Your task to perform on an android device: open device folders in google photos Image 0: 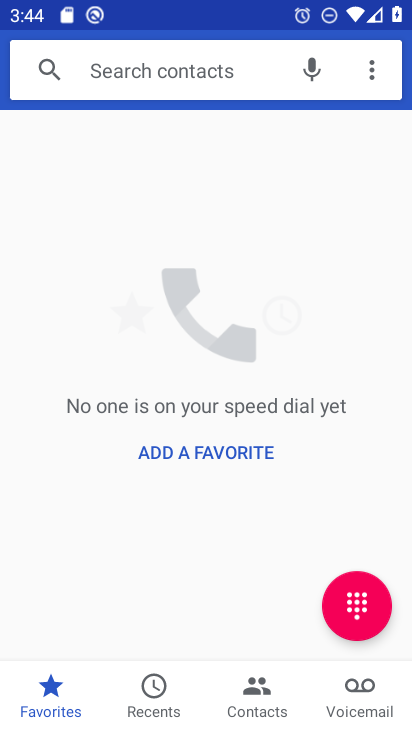
Step 0: press back button
Your task to perform on an android device: open device folders in google photos Image 1: 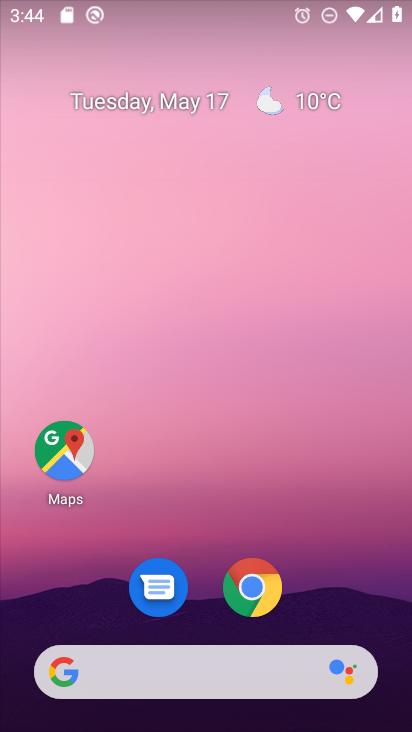
Step 1: drag from (318, 565) to (282, 40)
Your task to perform on an android device: open device folders in google photos Image 2: 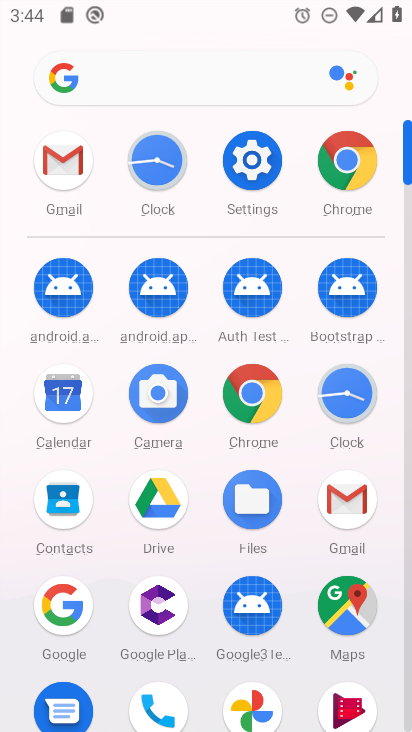
Step 2: drag from (23, 600) to (67, 275)
Your task to perform on an android device: open device folders in google photos Image 3: 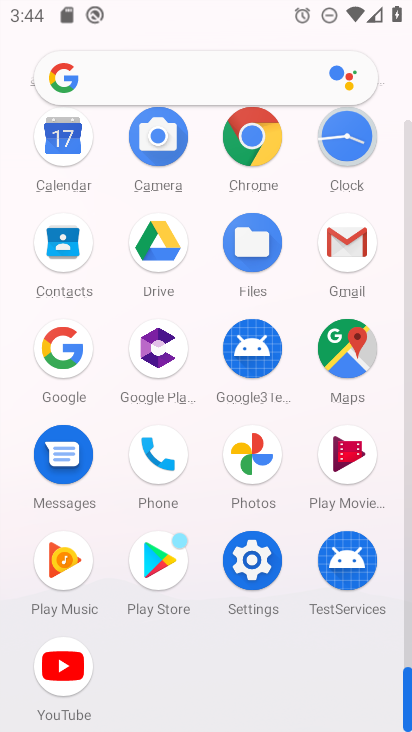
Step 3: click (245, 447)
Your task to perform on an android device: open device folders in google photos Image 4: 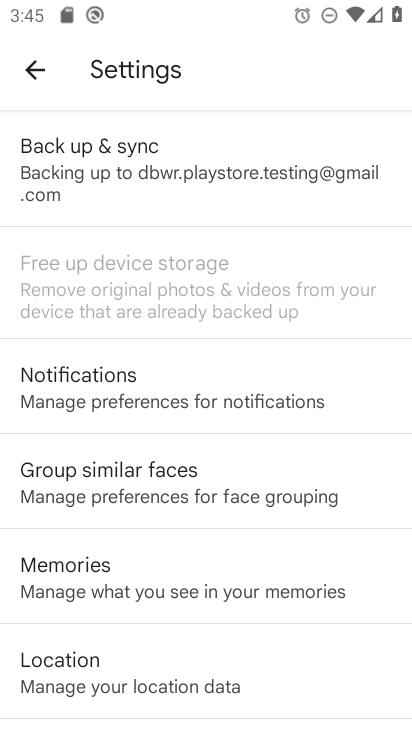
Step 4: drag from (298, 512) to (281, 160)
Your task to perform on an android device: open device folders in google photos Image 5: 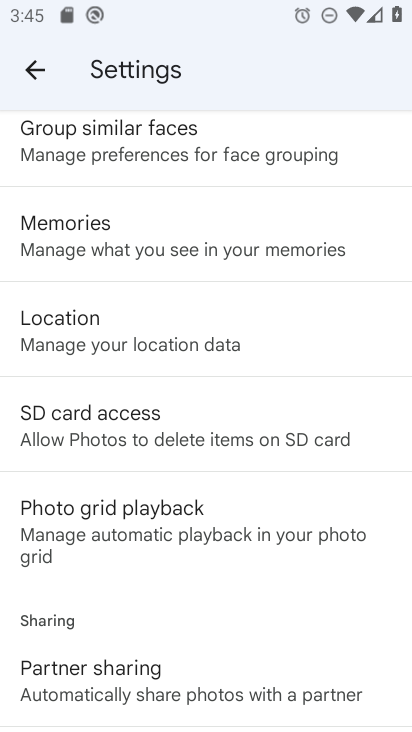
Step 5: drag from (274, 520) to (277, 129)
Your task to perform on an android device: open device folders in google photos Image 6: 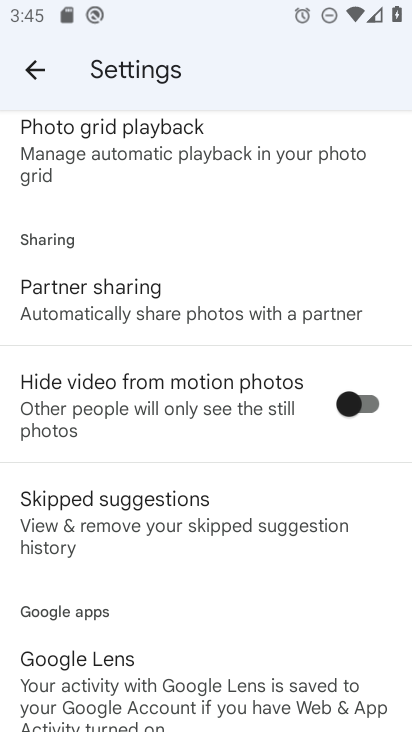
Step 6: drag from (206, 557) to (260, 90)
Your task to perform on an android device: open device folders in google photos Image 7: 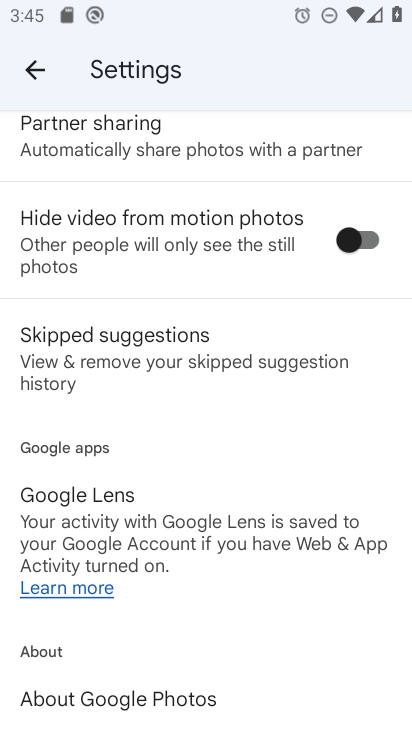
Step 7: drag from (180, 594) to (202, 182)
Your task to perform on an android device: open device folders in google photos Image 8: 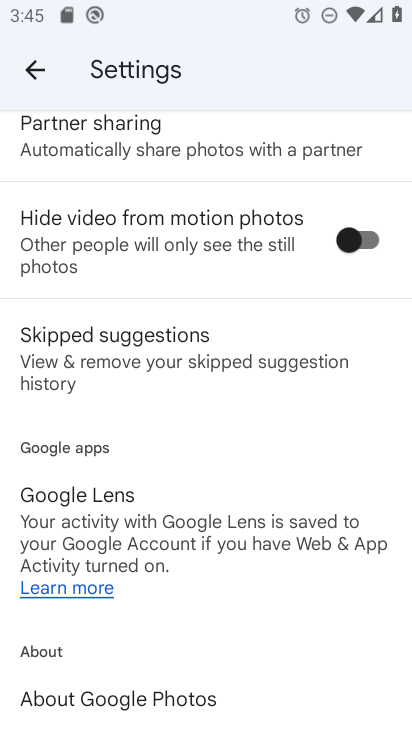
Step 8: drag from (193, 562) to (186, 214)
Your task to perform on an android device: open device folders in google photos Image 9: 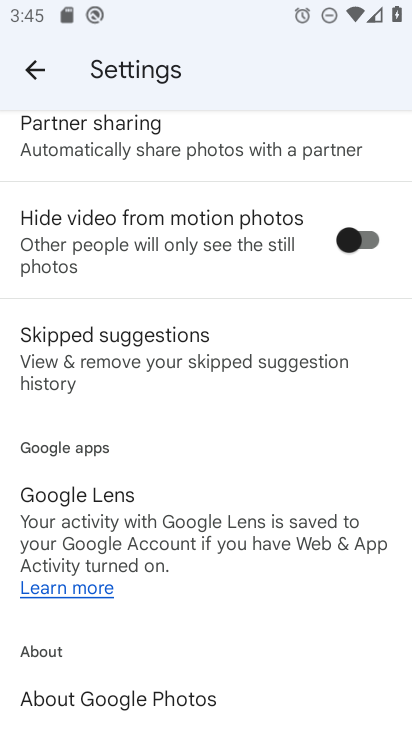
Step 9: drag from (222, 599) to (249, 159)
Your task to perform on an android device: open device folders in google photos Image 10: 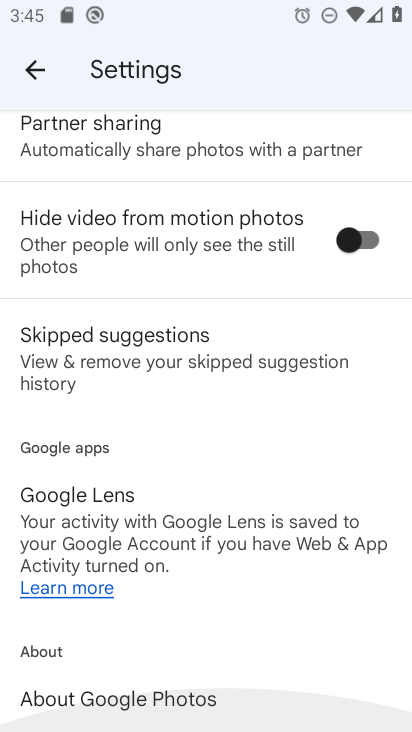
Step 10: drag from (247, 158) to (230, 617)
Your task to perform on an android device: open device folders in google photos Image 11: 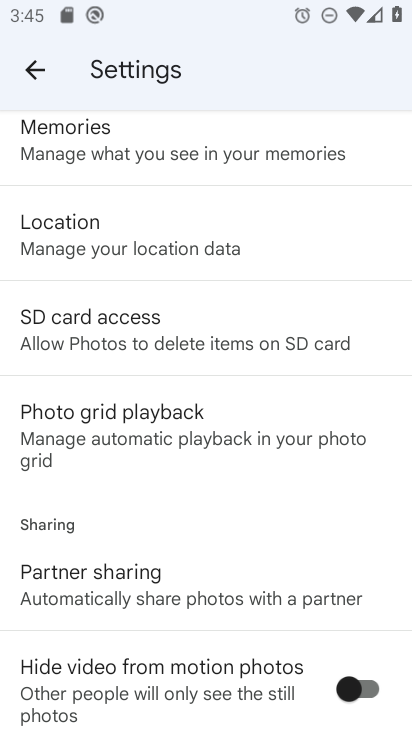
Step 11: drag from (189, 268) to (183, 641)
Your task to perform on an android device: open device folders in google photos Image 12: 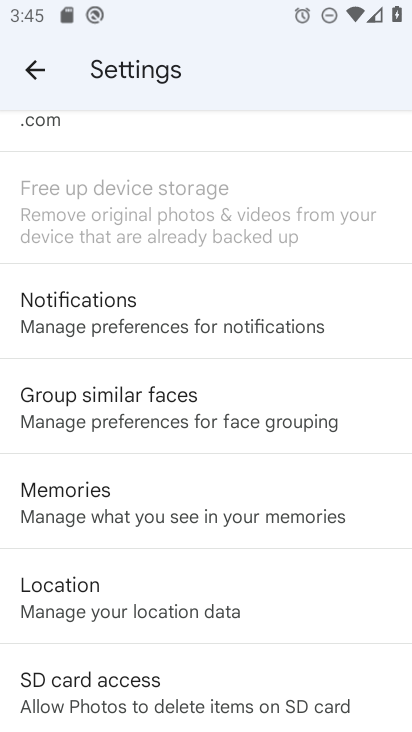
Step 12: drag from (191, 267) to (190, 673)
Your task to perform on an android device: open device folders in google photos Image 13: 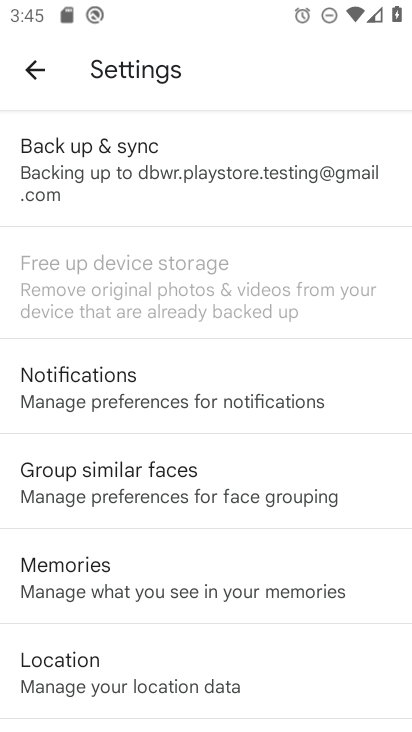
Step 13: click (28, 58)
Your task to perform on an android device: open device folders in google photos Image 14: 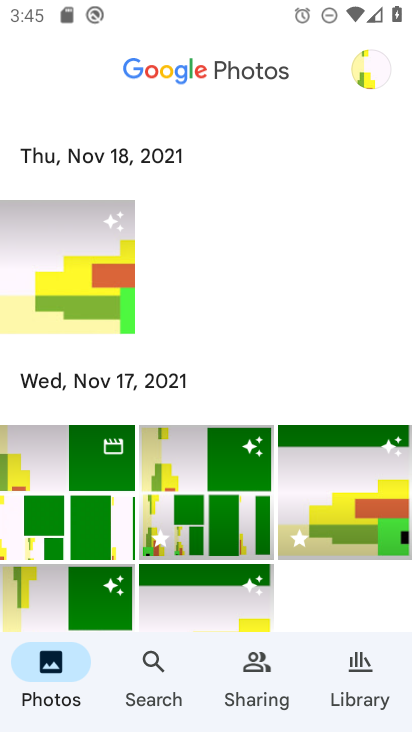
Step 14: click (349, 669)
Your task to perform on an android device: open device folders in google photos Image 15: 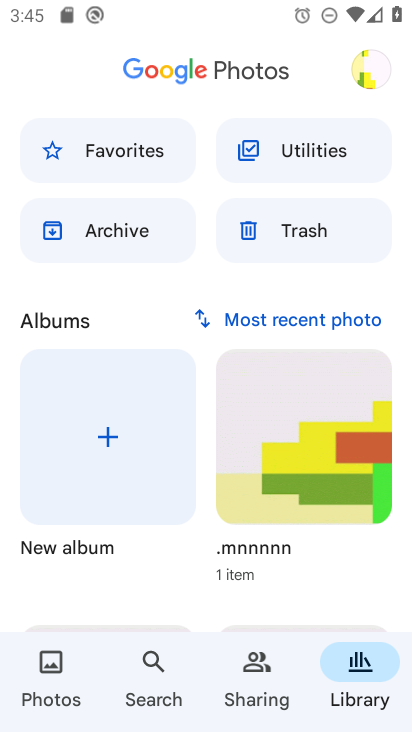
Step 15: task complete